Your task to perform on an android device: turn on data saver in the chrome app Image 0: 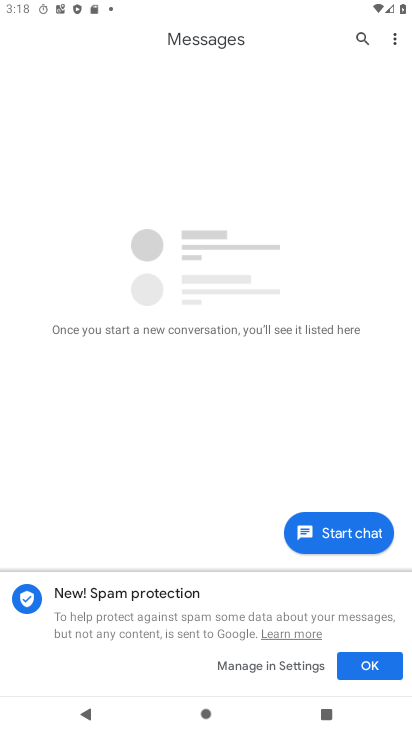
Step 0: press home button
Your task to perform on an android device: turn on data saver in the chrome app Image 1: 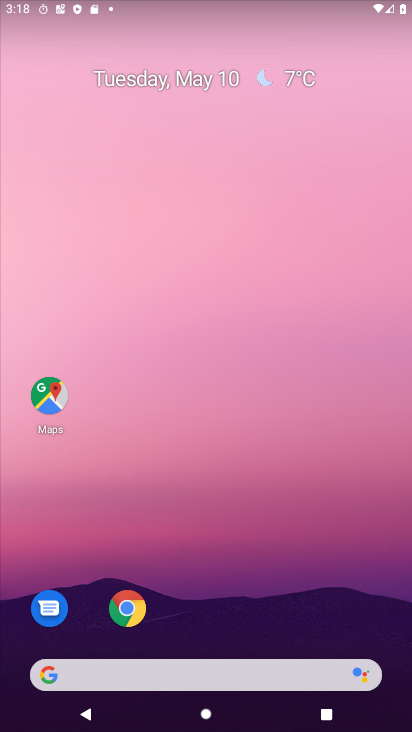
Step 1: click (127, 605)
Your task to perform on an android device: turn on data saver in the chrome app Image 2: 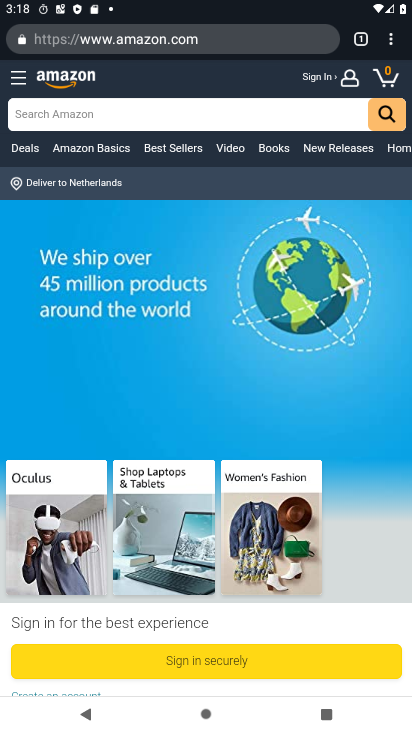
Step 2: click (391, 43)
Your task to perform on an android device: turn on data saver in the chrome app Image 3: 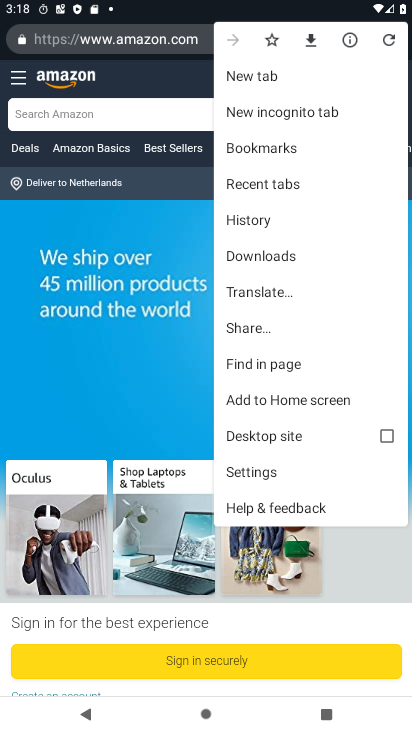
Step 3: click (265, 474)
Your task to perform on an android device: turn on data saver in the chrome app Image 4: 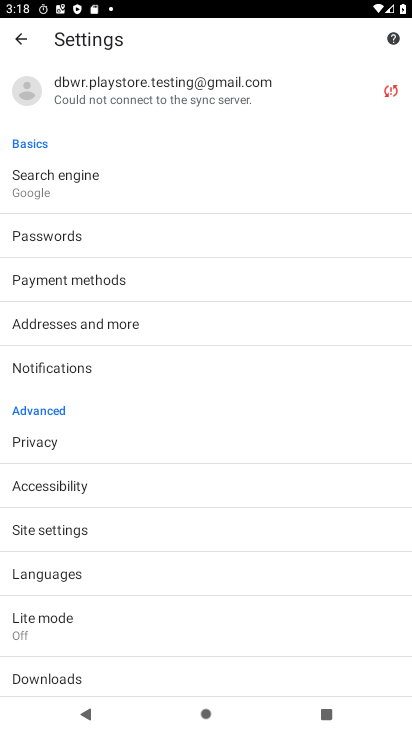
Step 4: click (69, 619)
Your task to perform on an android device: turn on data saver in the chrome app Image 5: 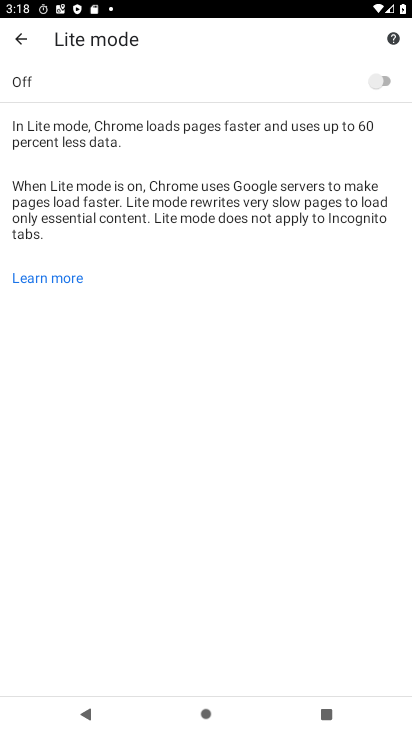
Step 5: click (380, 77)
Your task to perform on an android device: turn on data saver in the chrome app Image 6: 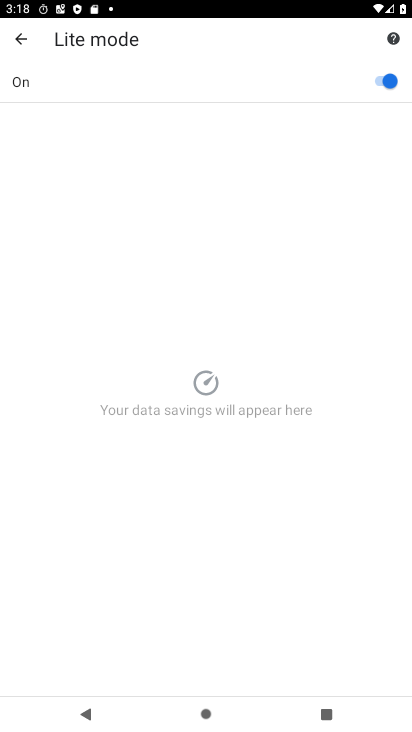
Step 6: task complete